Your task to perform on an android device: Go to privacy settings Image 0: 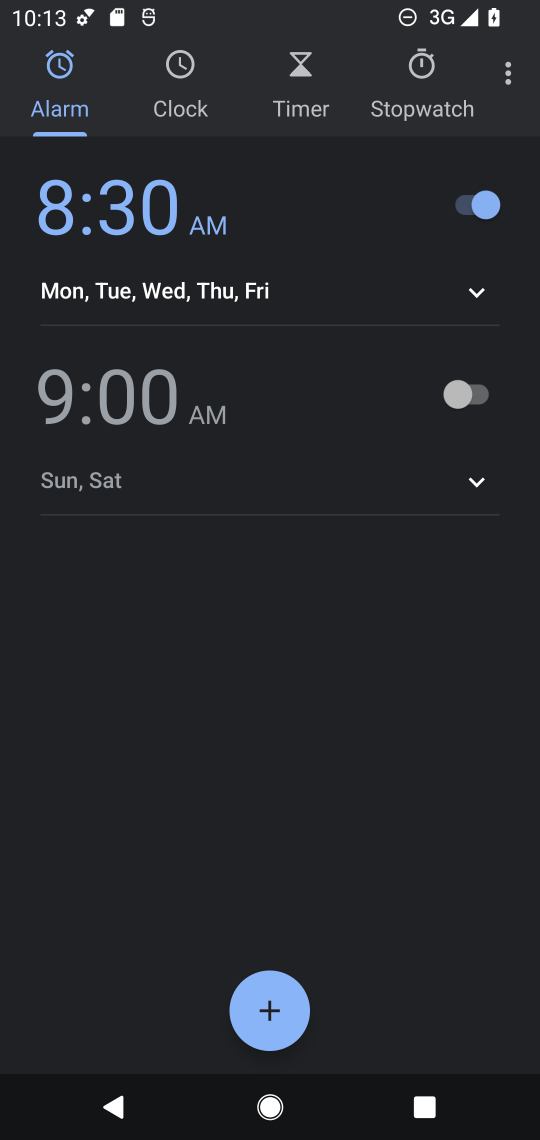
Step 0: press home button
Your task to perform on an android device: Go to privacy settings Image 1: 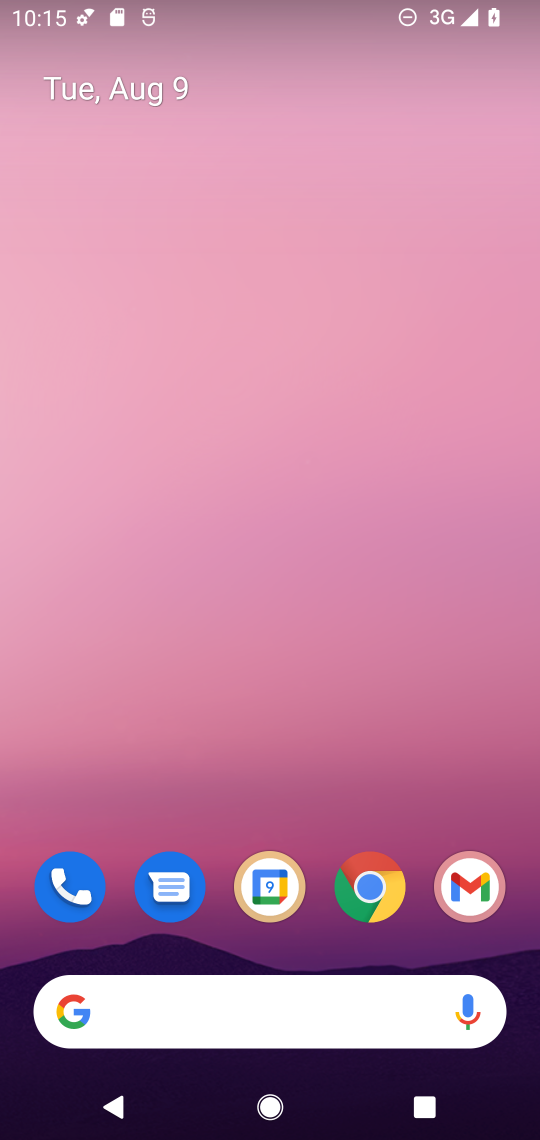
Step 1: drag from (318, 774) to (273, 134)
Your task to perform on an android device: Go to privacy settings Image 2: 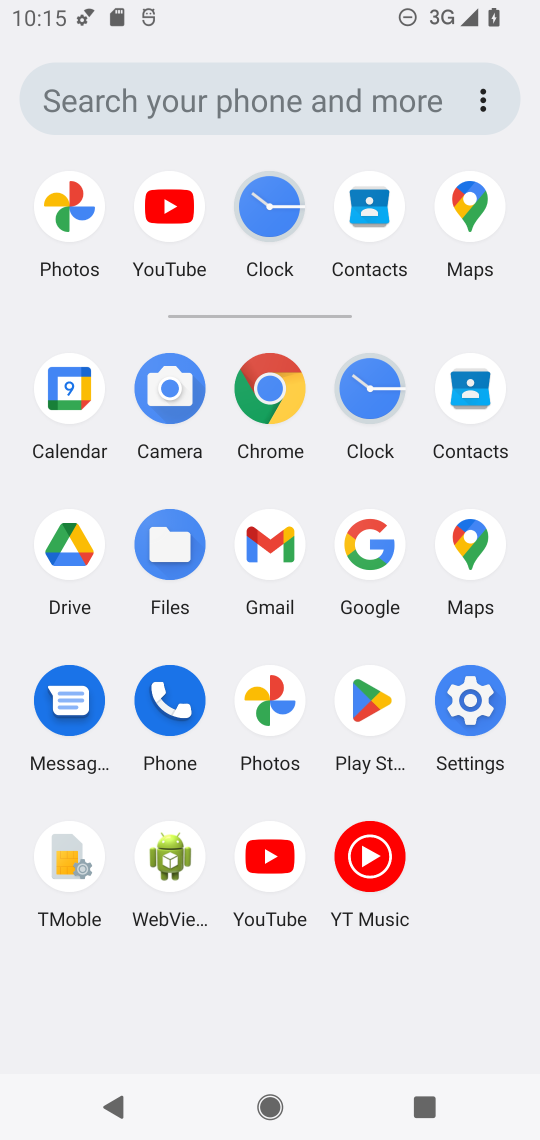
Step 2: click (488, 721)
Your task to perform on an android device: Go to privacy settings Image 3: 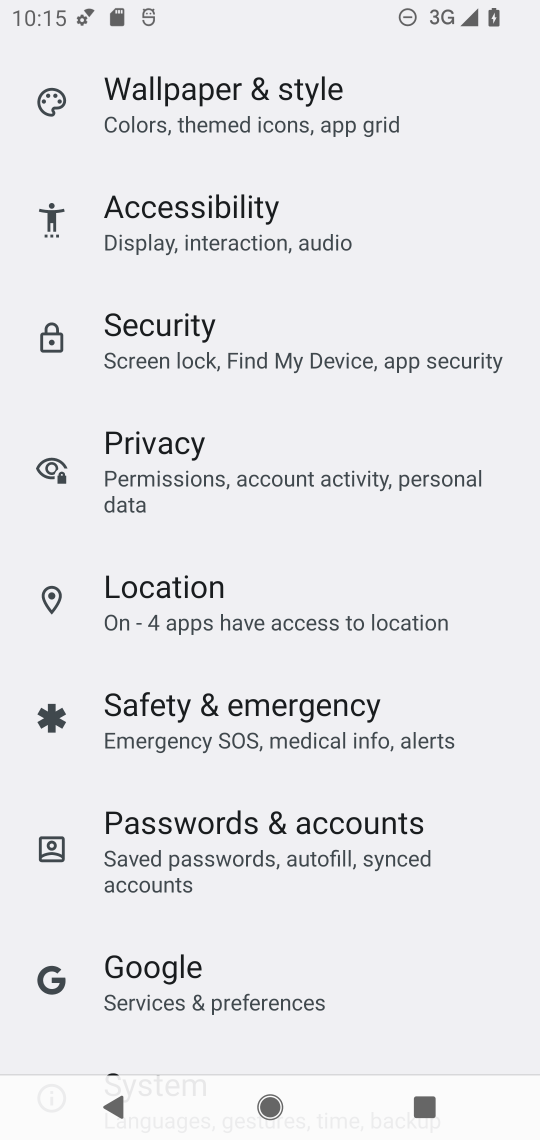
Step 3: click (163, 453)
Your task to perform on an android device: Go to privacy settings Image 4: 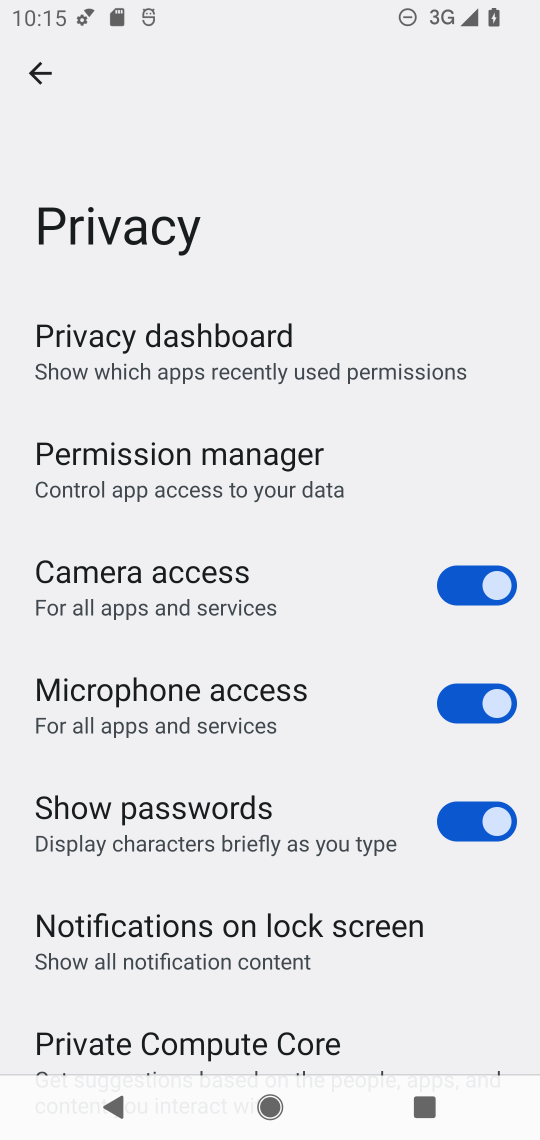
Step 4: task complete